Your task to perform on an android device: Go to Amazon Image 0: 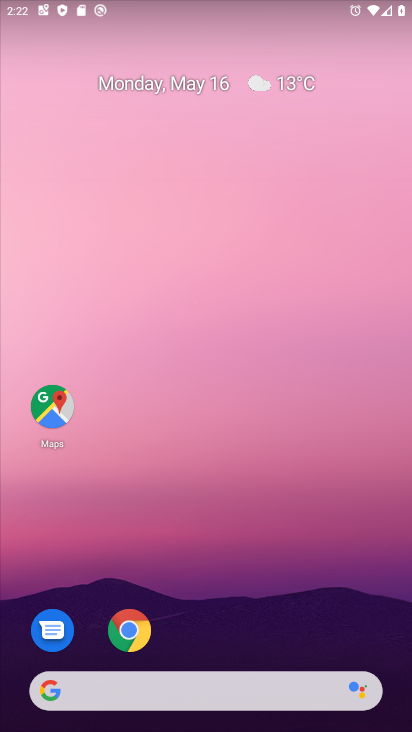
Step 0: click (135, 648)
Your task to perform on an android device: Go to Amazon Image 1: 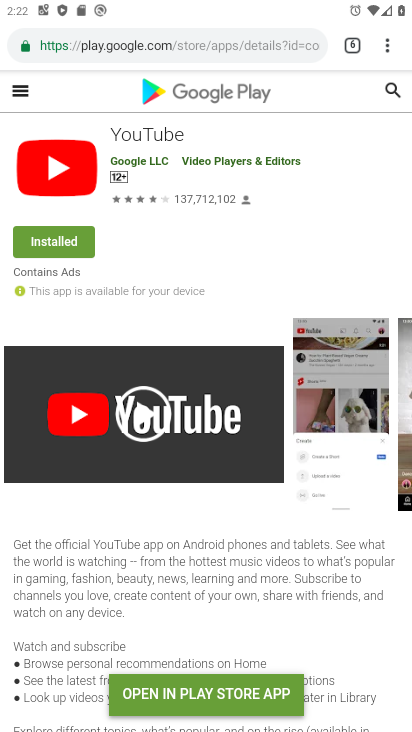
Step 1: click (349, 57)
Your task to perform on an android device: Go to Amazon Image 2: 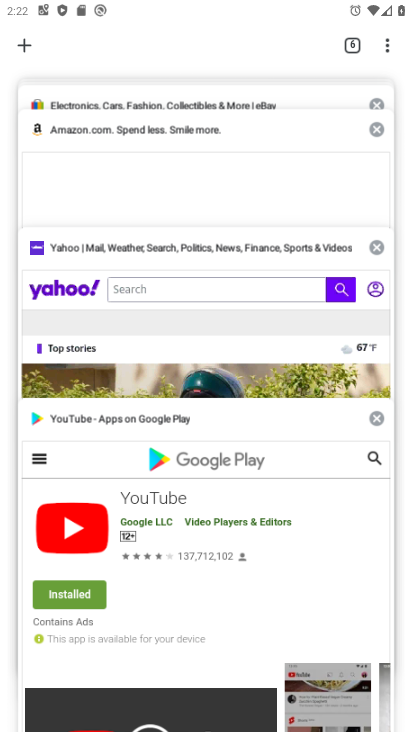
Step 2: click (76, 148)
Your task to perform on an android device: Go to Amazon Image 3: 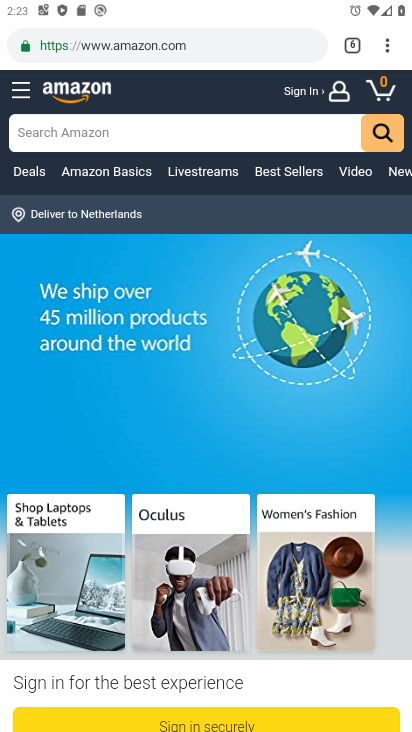
Step 3: task complete